Your task to perform on an android device: open app "Microsoft Outlook" (install if not already installed) Image 0: 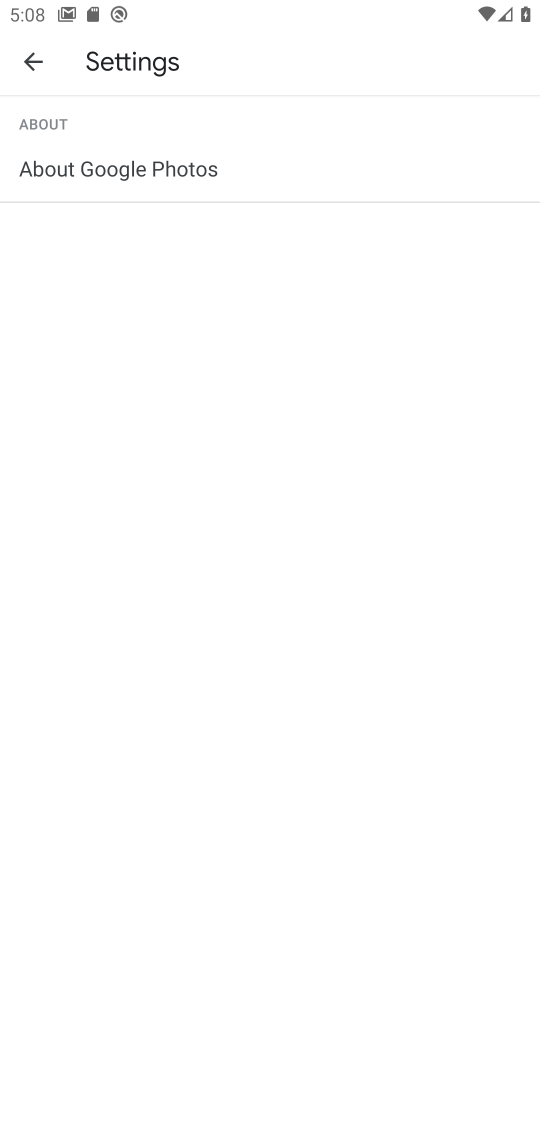
Step 0: press home button
Your task to perform on an android device: open app "Microsoft Outlook" (install if not already installed) Image 1: 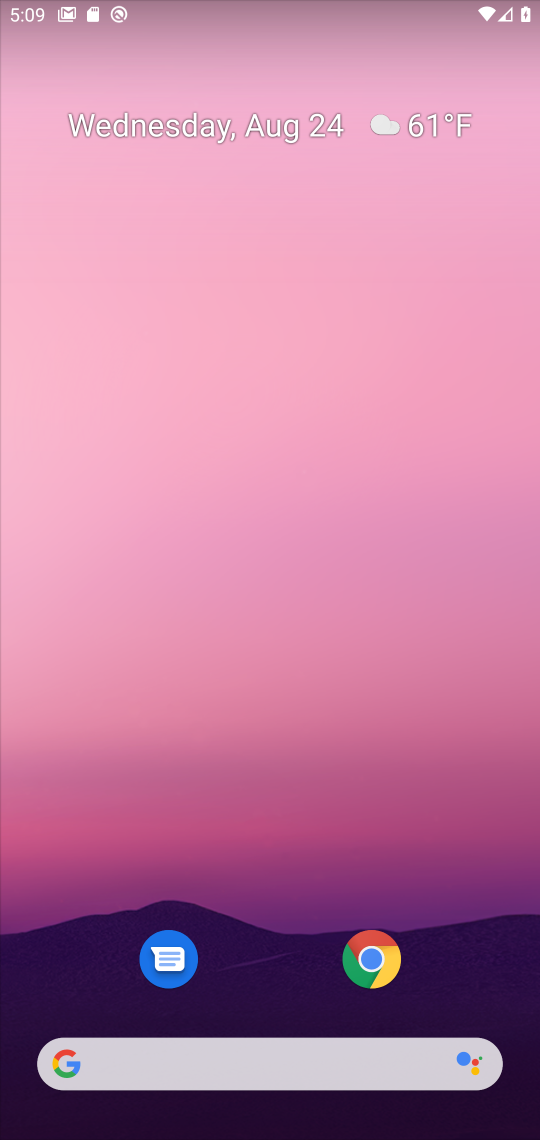
Step 1: drag from (249, 1039) to (278, 272)
Your task to perform on an android device: open app "Microsoft Outlook" (install if not already installed) Image 2: 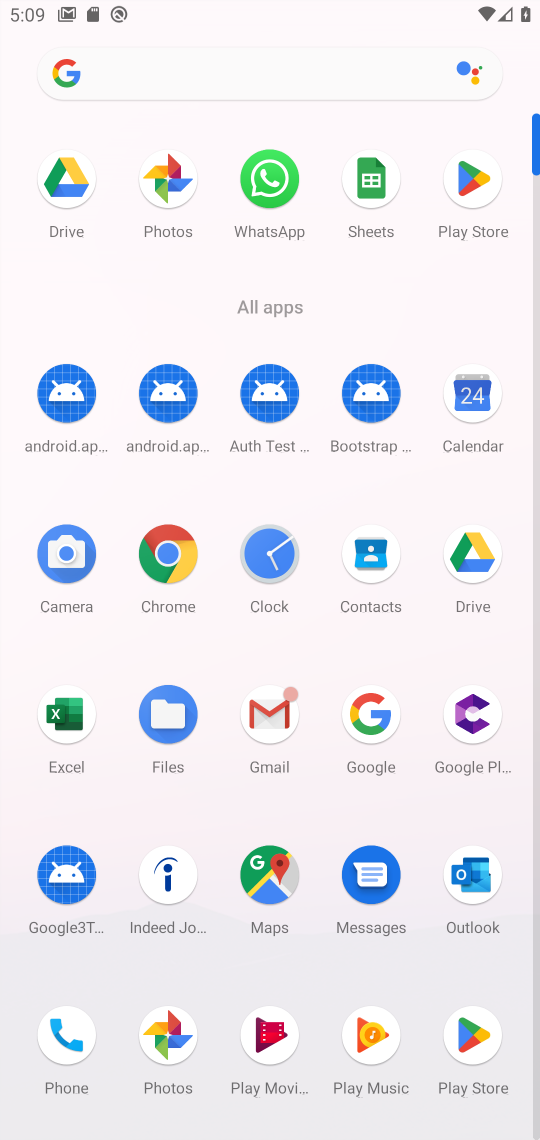
Step 2: click (465, 177)
Your task to perform on an android device: open app "Microsoft Outlook" (install if not already installed) Image 3: 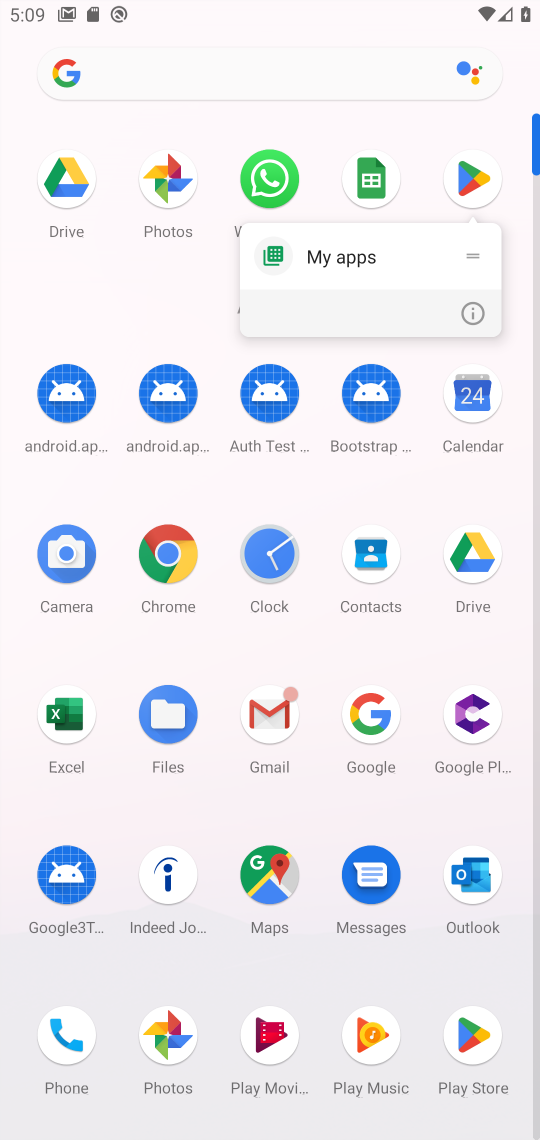
Step 3: click (472, 172)
Your task to perform on an android device: open app "Microsoft Outlook" (install if not already installed) Image 4: 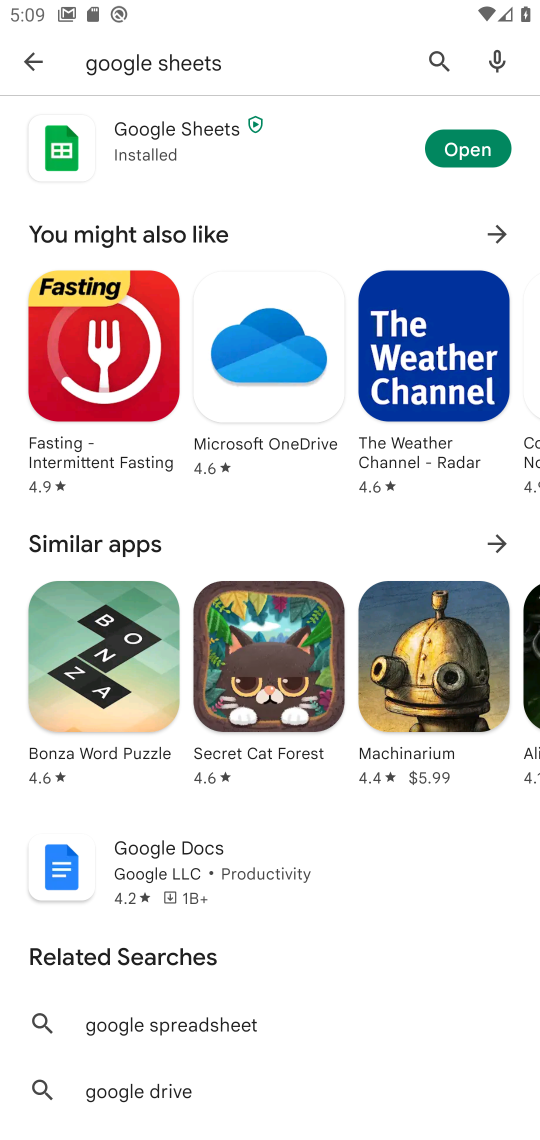
Step 4: click (424, 63)
Your task to perform on an android device: open app "Microsoft Outlook" (install if not already installed) Image 5: 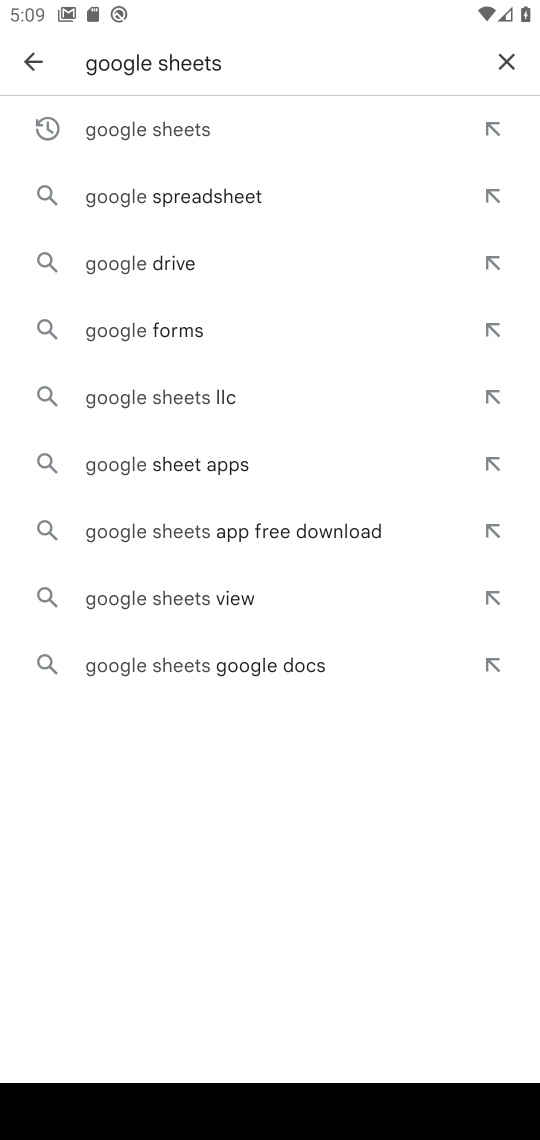
Step 5: click (505, 66)
Your task to perform on an android device: open app "Microsoft Outlook" (install if not already installed) Image 6: 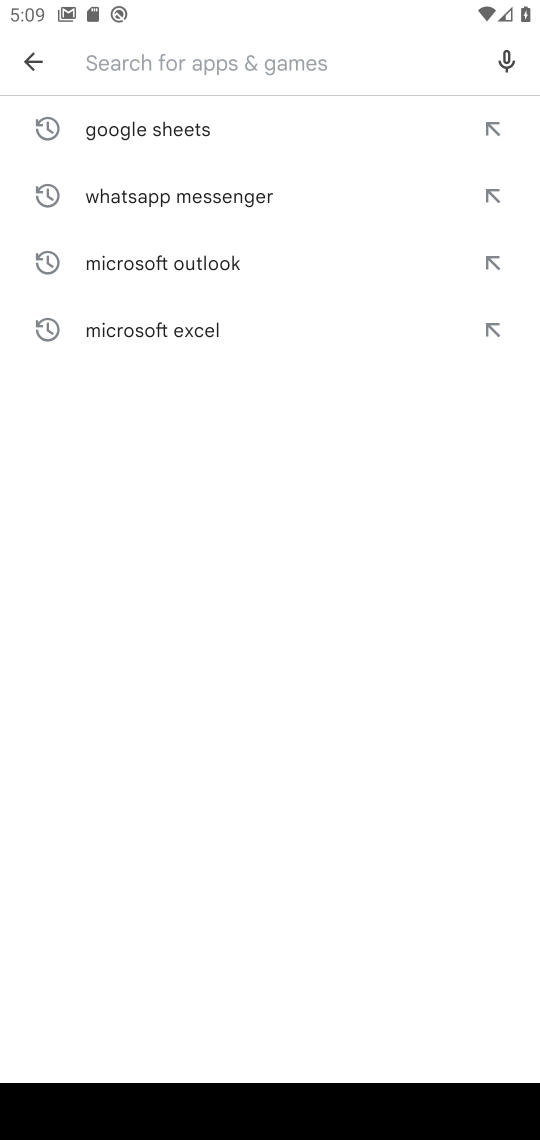
Step 6: type "Microsoft Outlook"
Your task to perform on an android device: open app "Microsoft Outlook" (install if not already installed) Image 7: 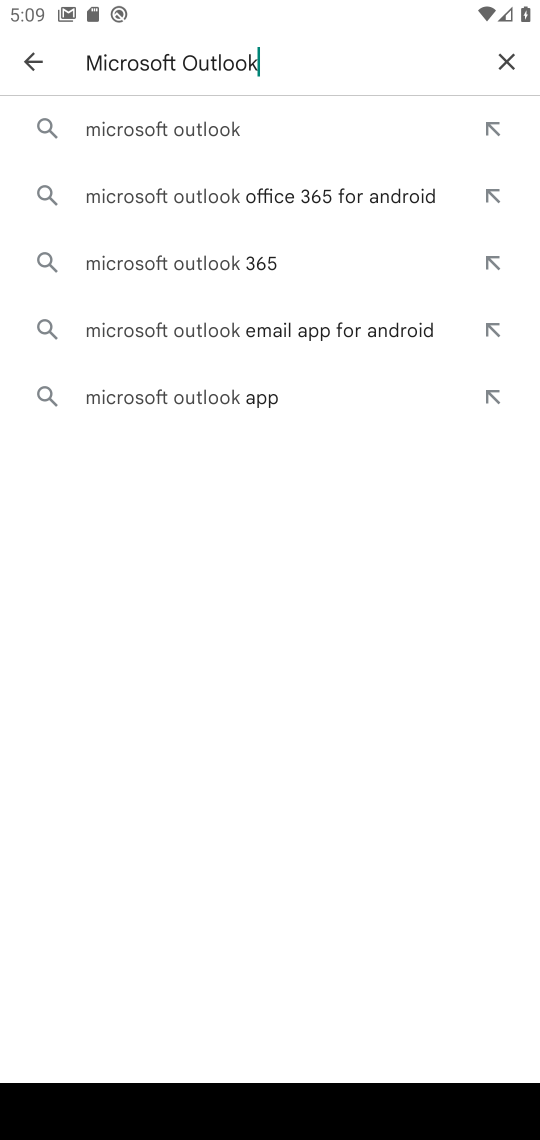
Step 7: click (114, 135)
Your task to perform on an android device: open app "Microsoft Outlook" (install if not already installed) Image 8: 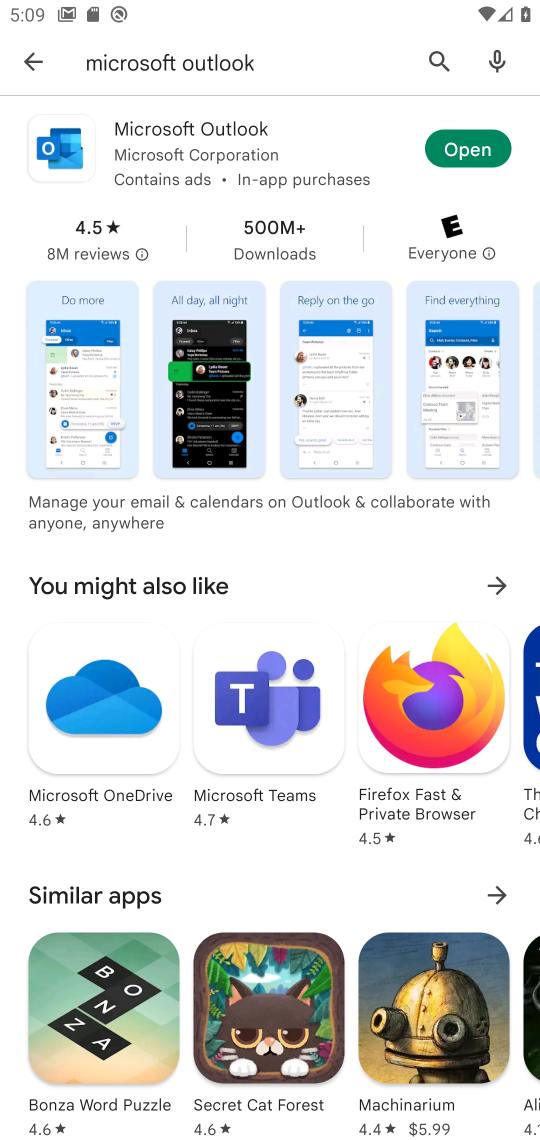
Step 8: click (460, 155)
Your task to perform on an android device: open app "Microsoft Outlook" (install if not already installed) Image 9: 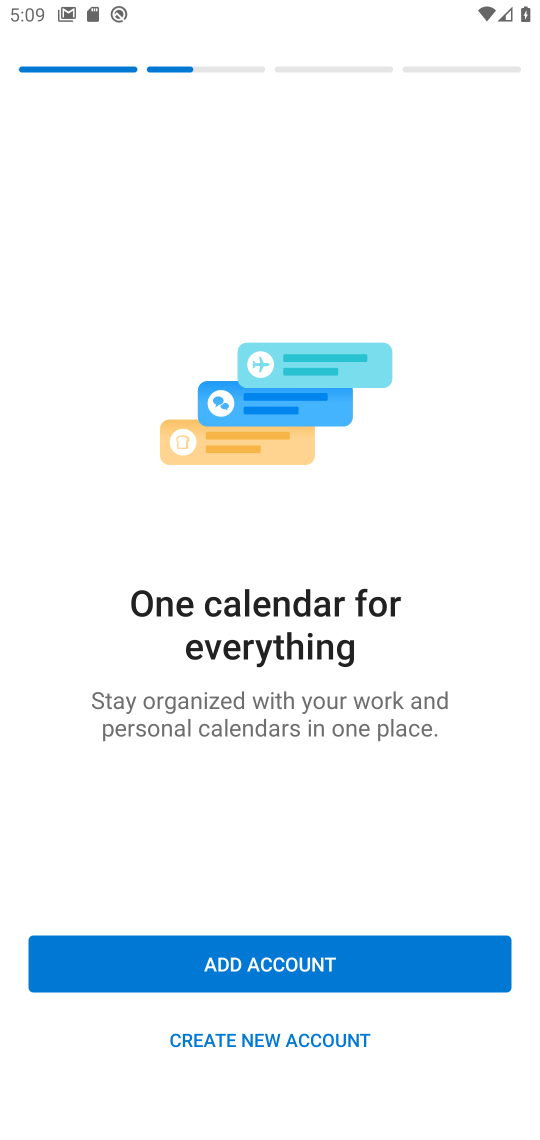
Step 9: task complete